Your task to perform on an android device: all mails in gmail Image 0: 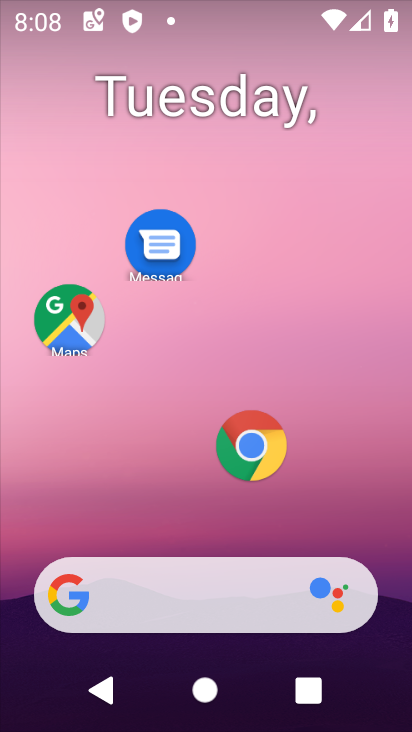
Step 0: drag from (188, 522) to (188, 407)
Your task to perform on an android device: all mails in gmail Image 1: 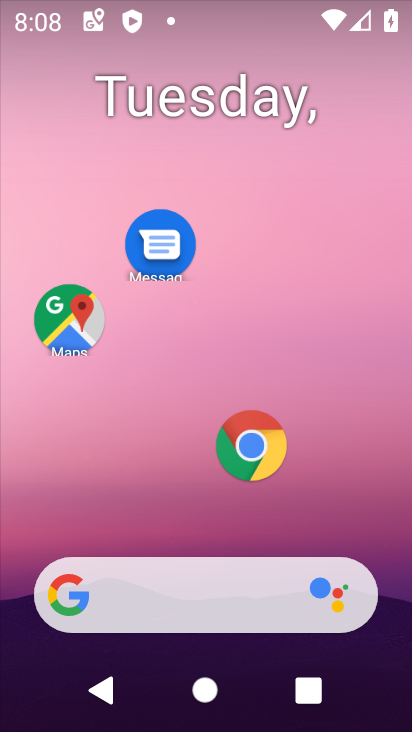
Step 1: click (249, 142)
Your task to perform on an android device: all mails in gmail Image 2: 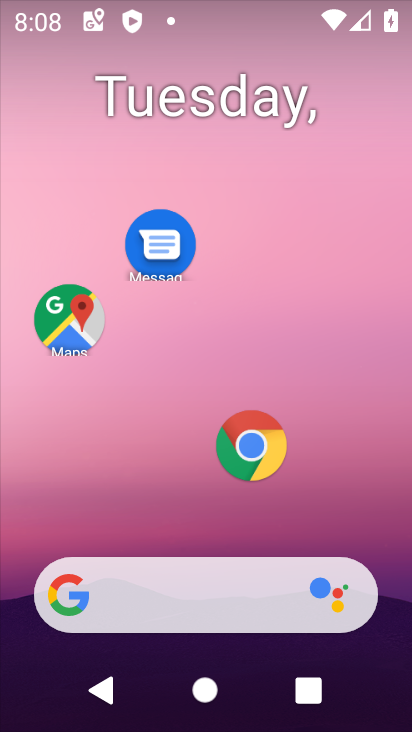
Step 2: drag from (212, 503) to (234, 63)
Your task to perform on an android device: all mails in gmail Image 3: 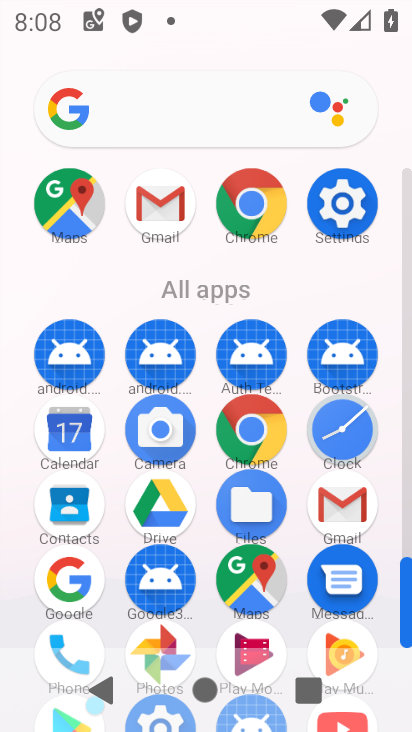
Step 3: click (171, 195)
Your task to perform on an android device: all mails in gmail Image 4: 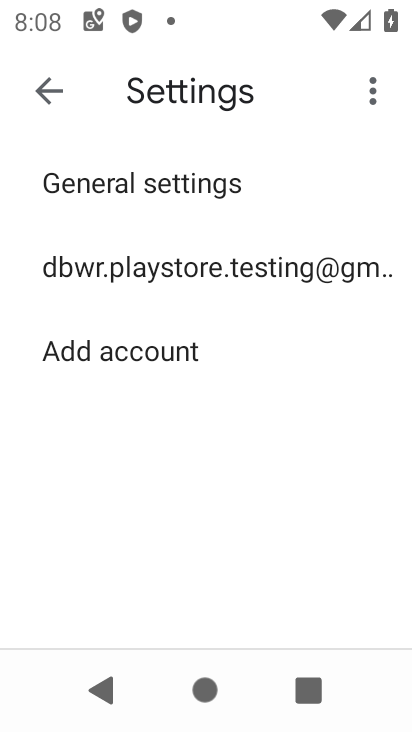
Step 4: click (44, 89)
Your task to perform on an android device: all mails in gmail Image 5: 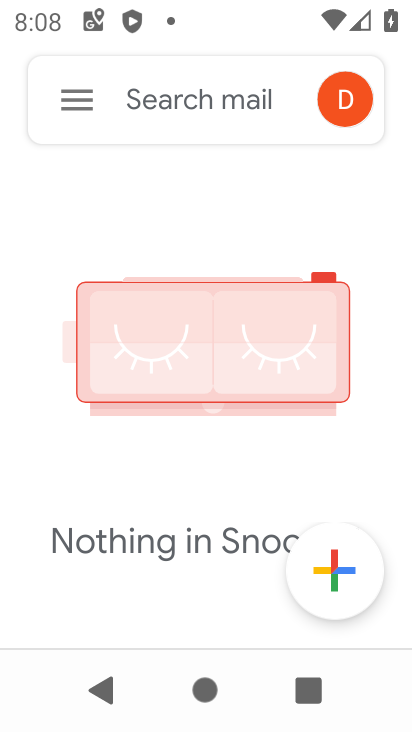
Step 5: click (73, 91)
Your task to perform on an android device: all mails in gmail Image 6: 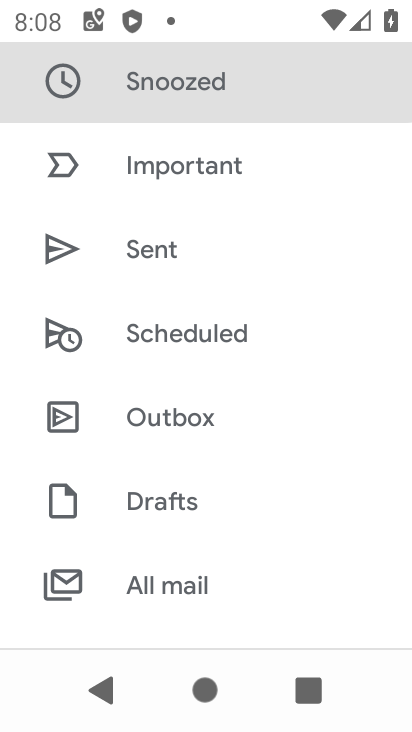
Step 6: click (167, 599)
Your task to perform on an android device: all mails in gmail Image 7: 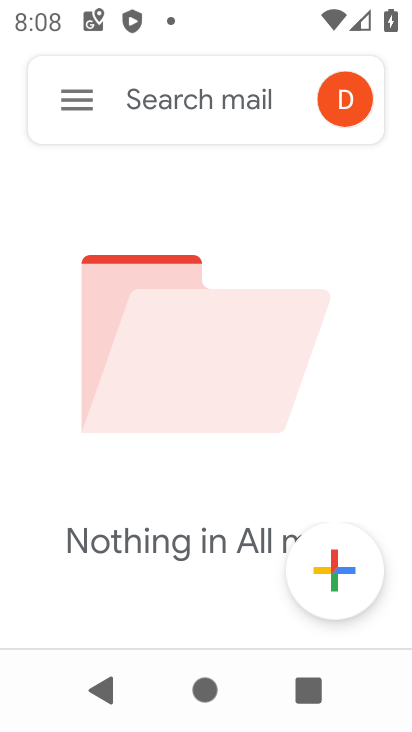
Step 7: task complete